Your task to perform on an android device: Check the news Image 0: 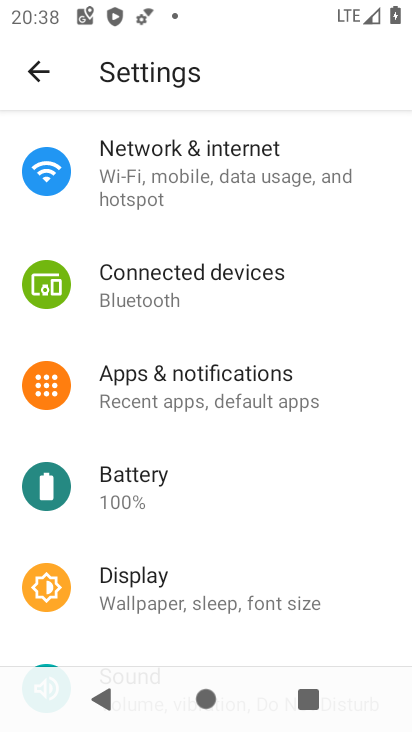
Step 0: press home button
Your task to perform on an android device: Check the news Image 1: 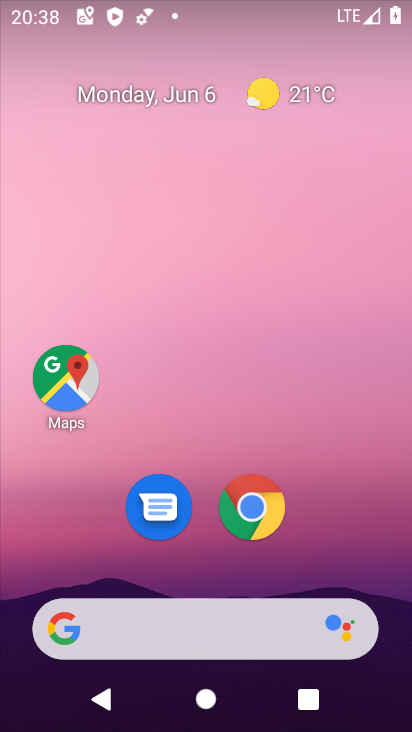
Step 1: click (221, 631)
Your task to perform on an android device: Check the news Image 2: 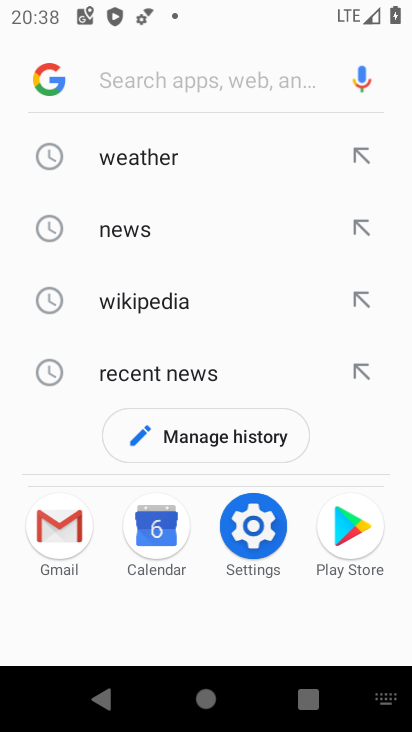
Step 2: click (153, 243)
Your task to perform on an android device: Check the news Image 3: 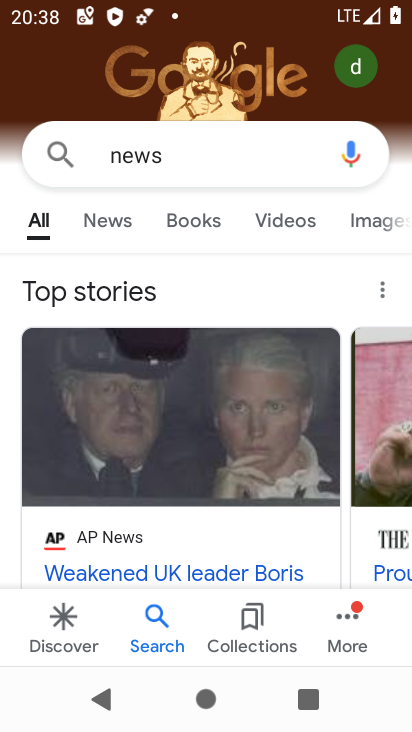
Step 3: task complete